Your task to perform on an android device: Open maps Image 0: 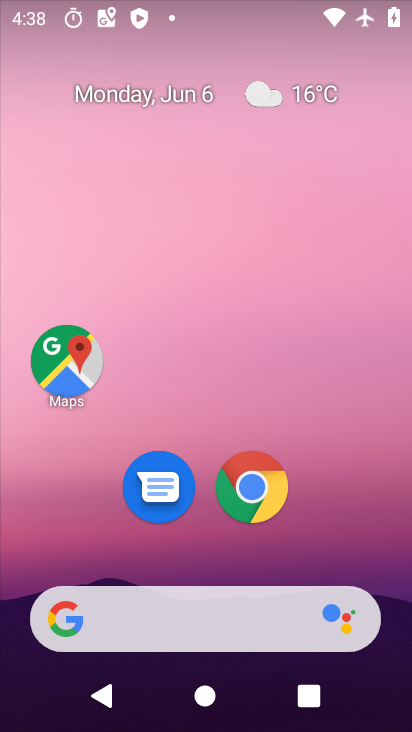
Step 0: click (61, 364)
Your task to perform on an android device: Open maps Image 1: 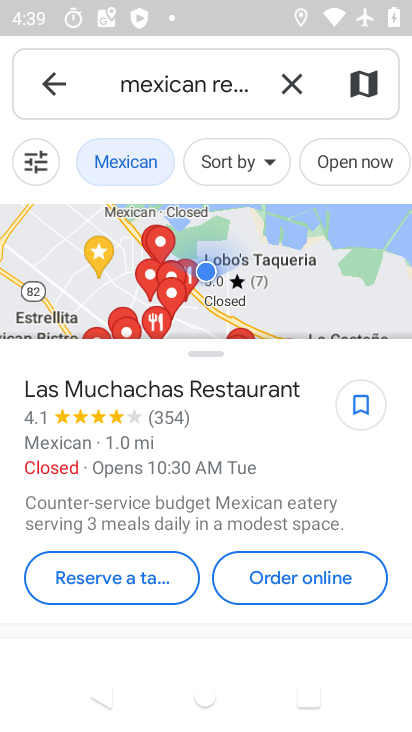
Step 1: task complete